Your task to perform on an android device: Open settings Image 0: 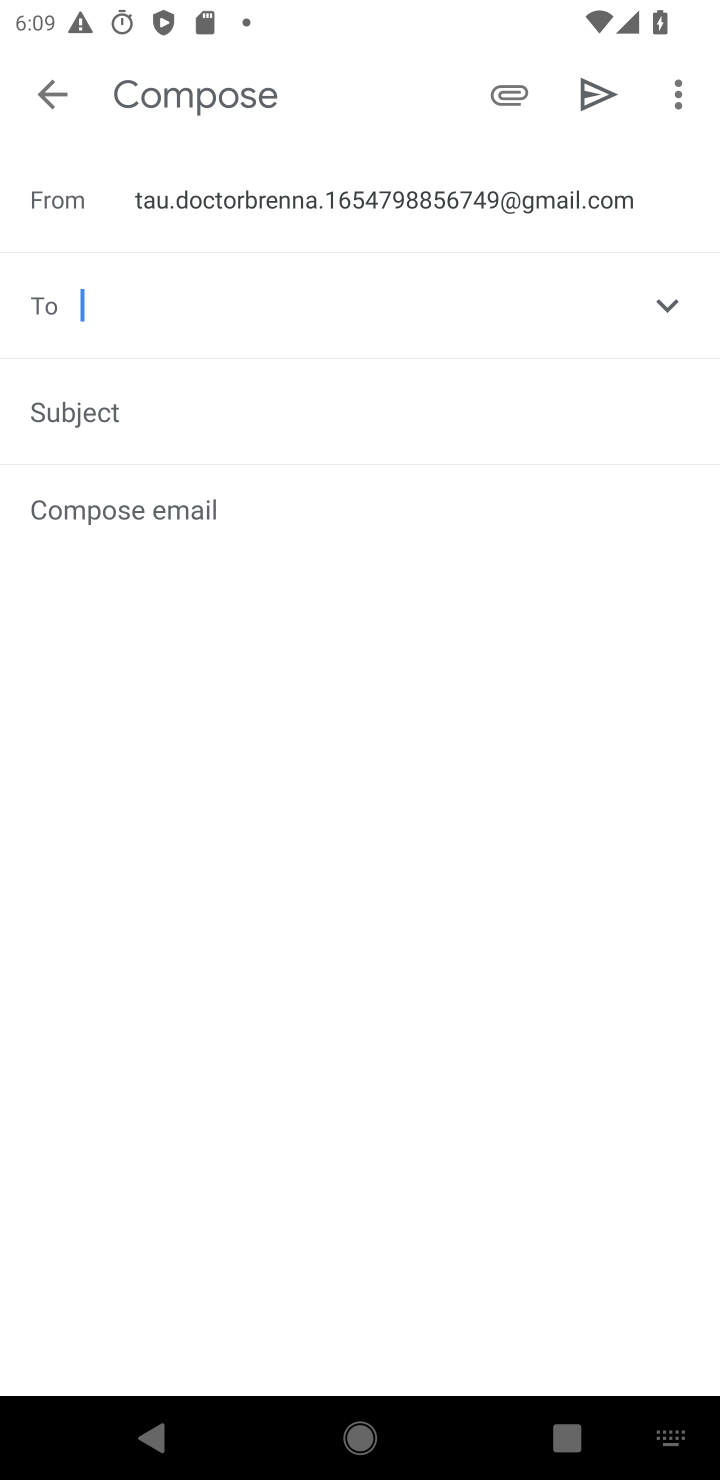
Step 0: press home button
Your task to perform on an android device: Open settings Image 1: 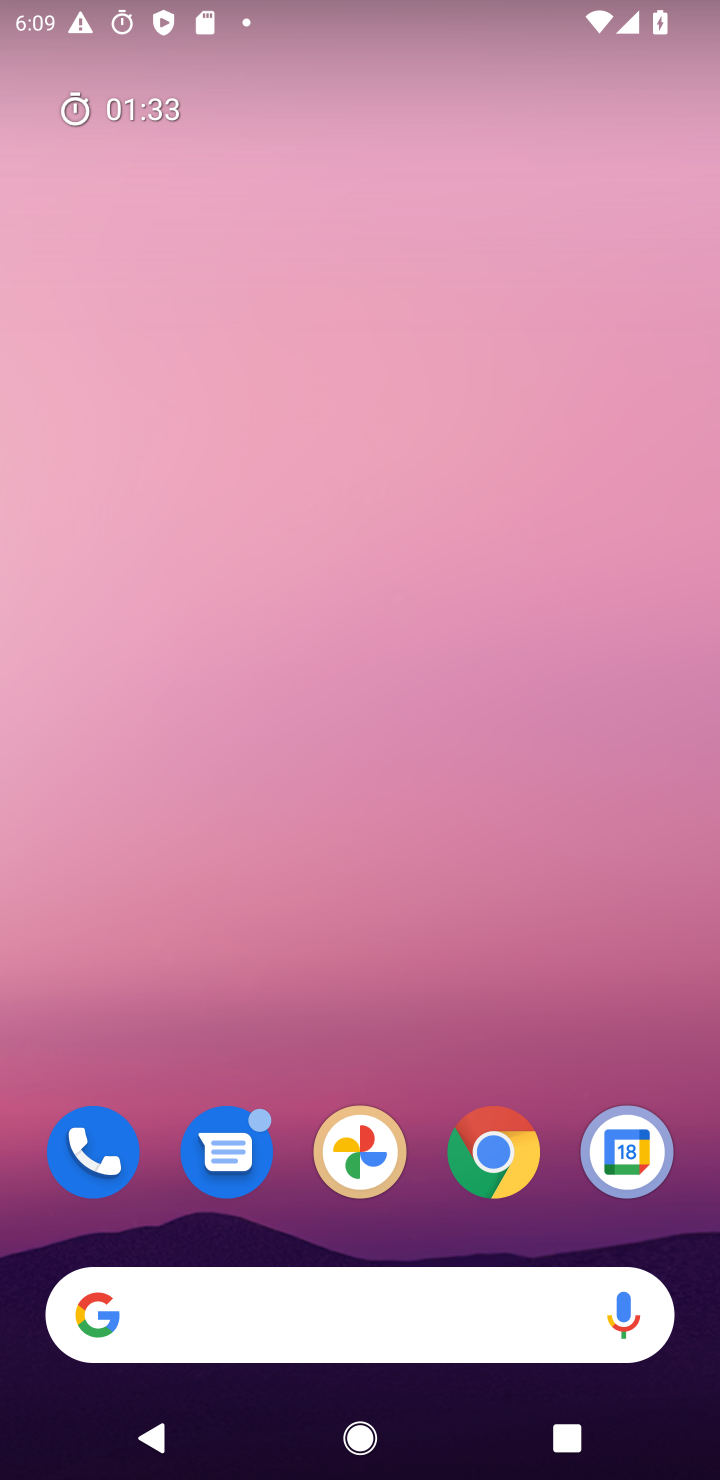
Step 1: drag from (523, 1018) to (584, 34)
Your task to perform on an android device: Open settings Image 2: 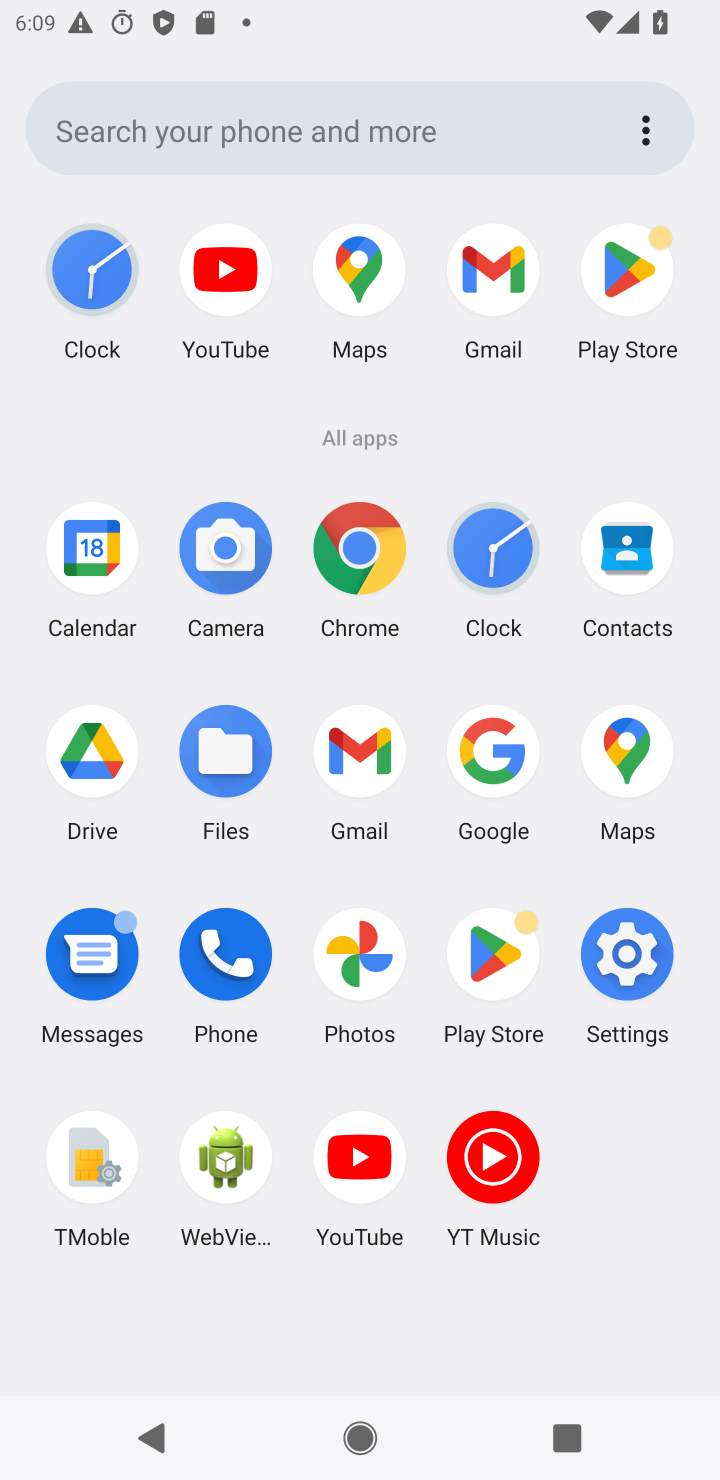
Step 2: click (616, 965)
Your task to perform on an android device: Open settings Image 3: 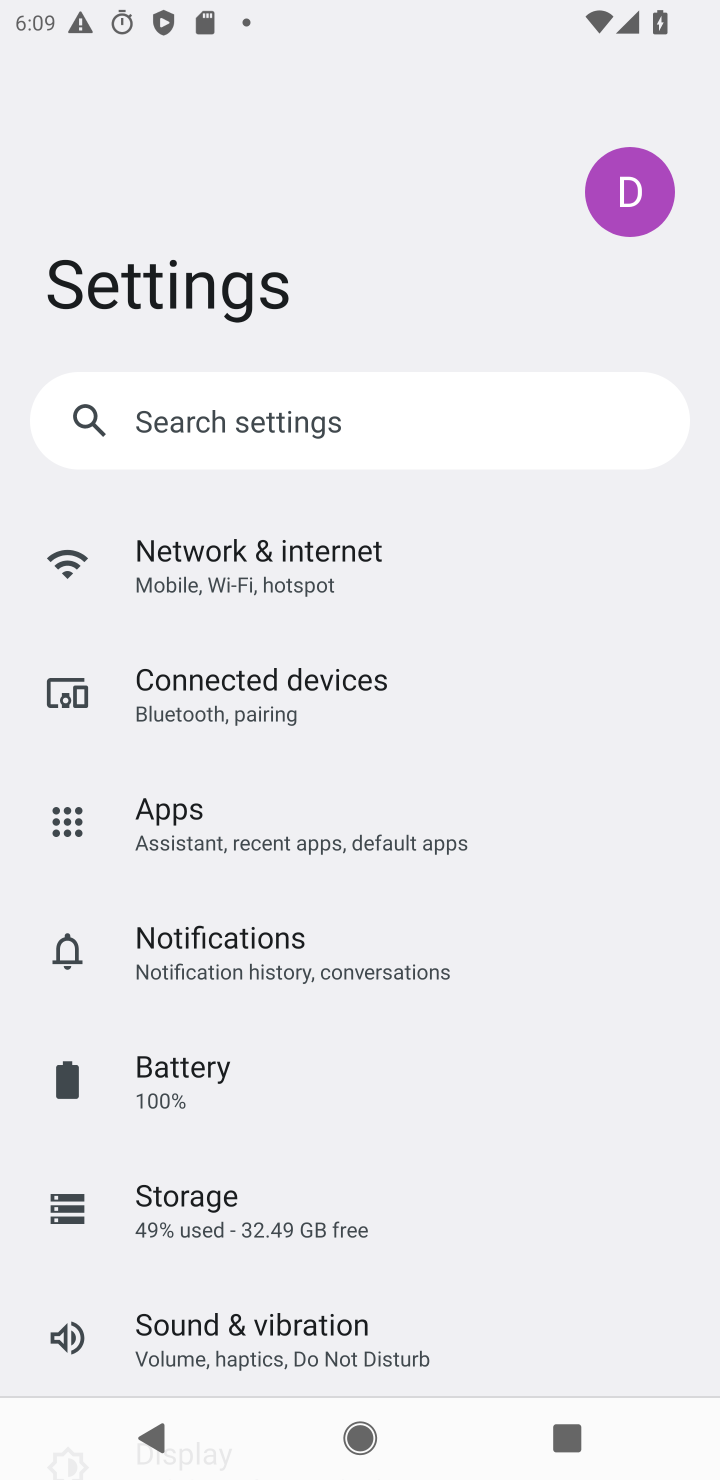
Step 3: task complete